Your task to perform on an android device: Turn on the flashlight Image 0: 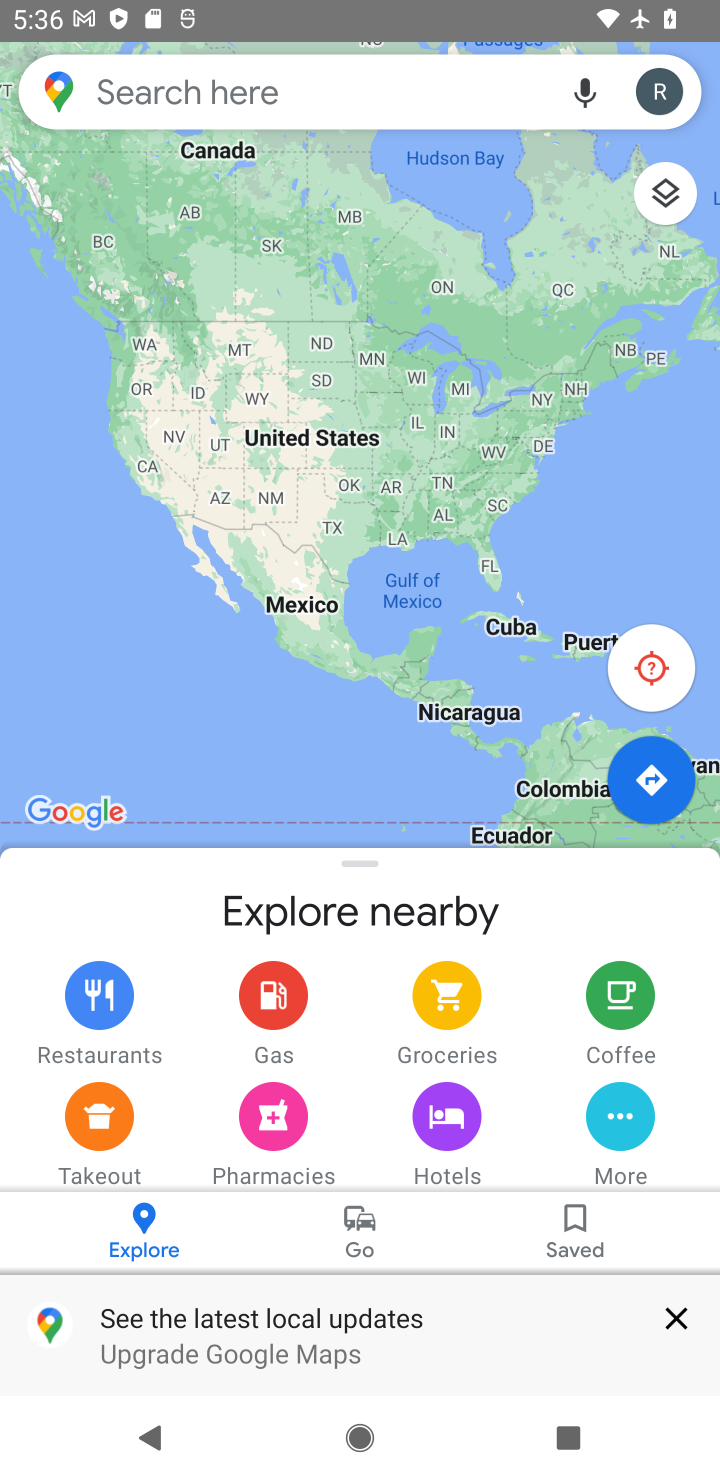
Step 0: press home button
Your task to perform on an android device: Turn on the flashlight Image 1: 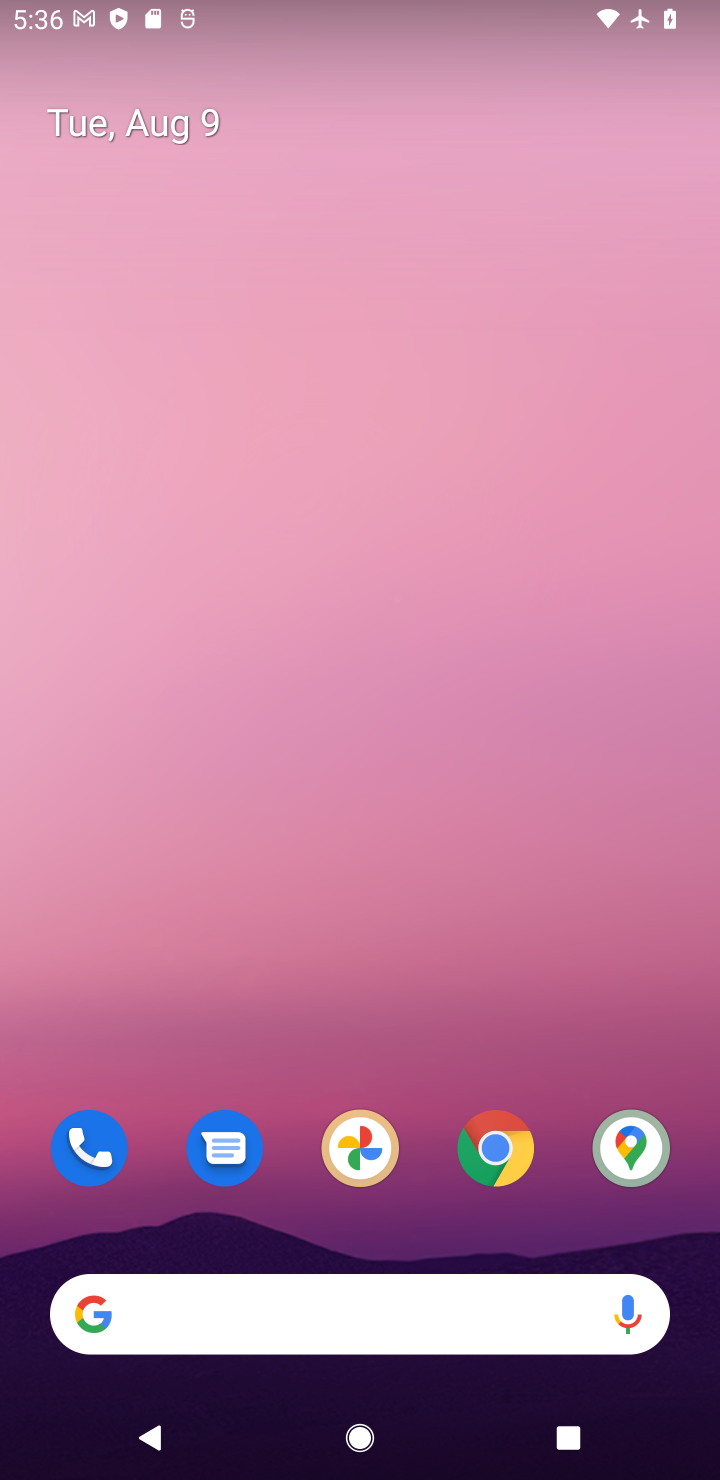
Step 1: drag from (327, 1046) to (528, 24)
Your task to perform on an android device: Turn on the flashlight Image 2: 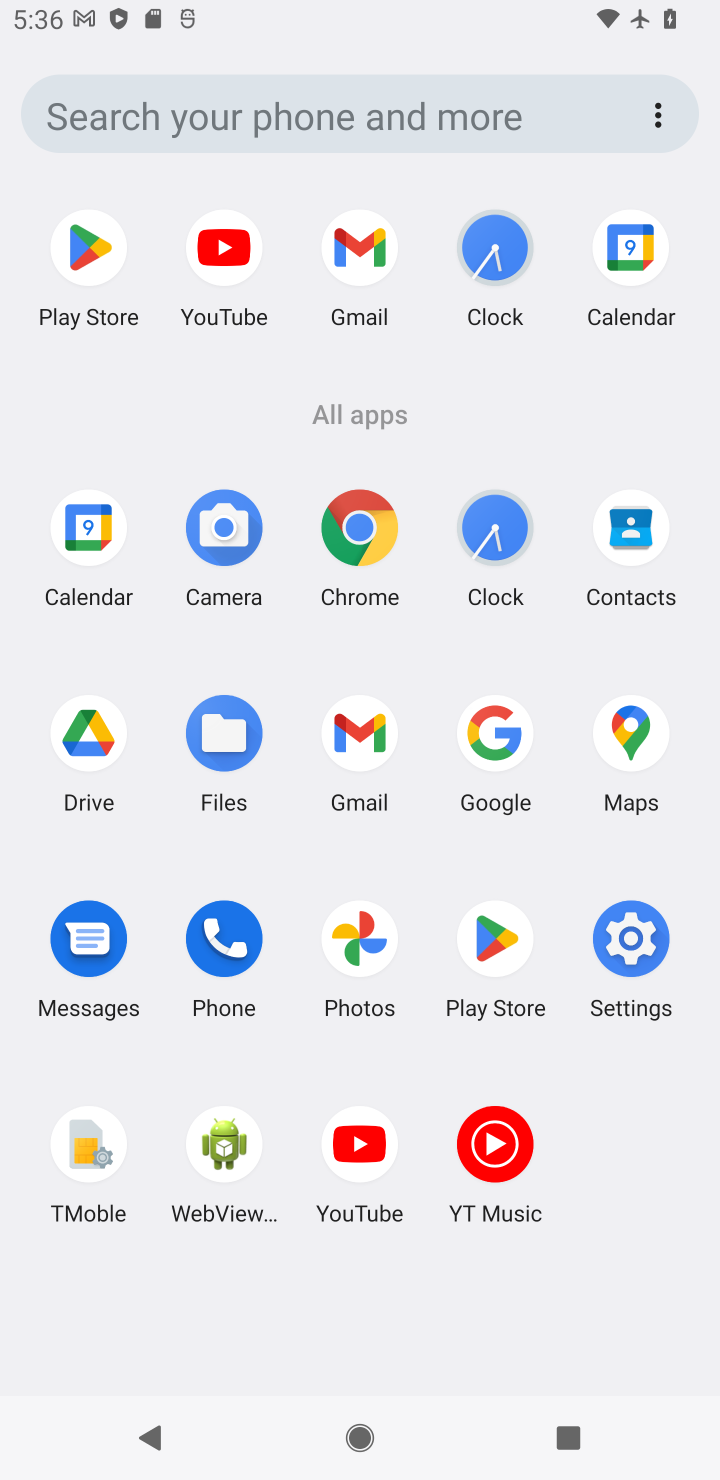
Step 2: click (629, 937)
Your task to perform on an android device: Turn on the flashlight Image 3: 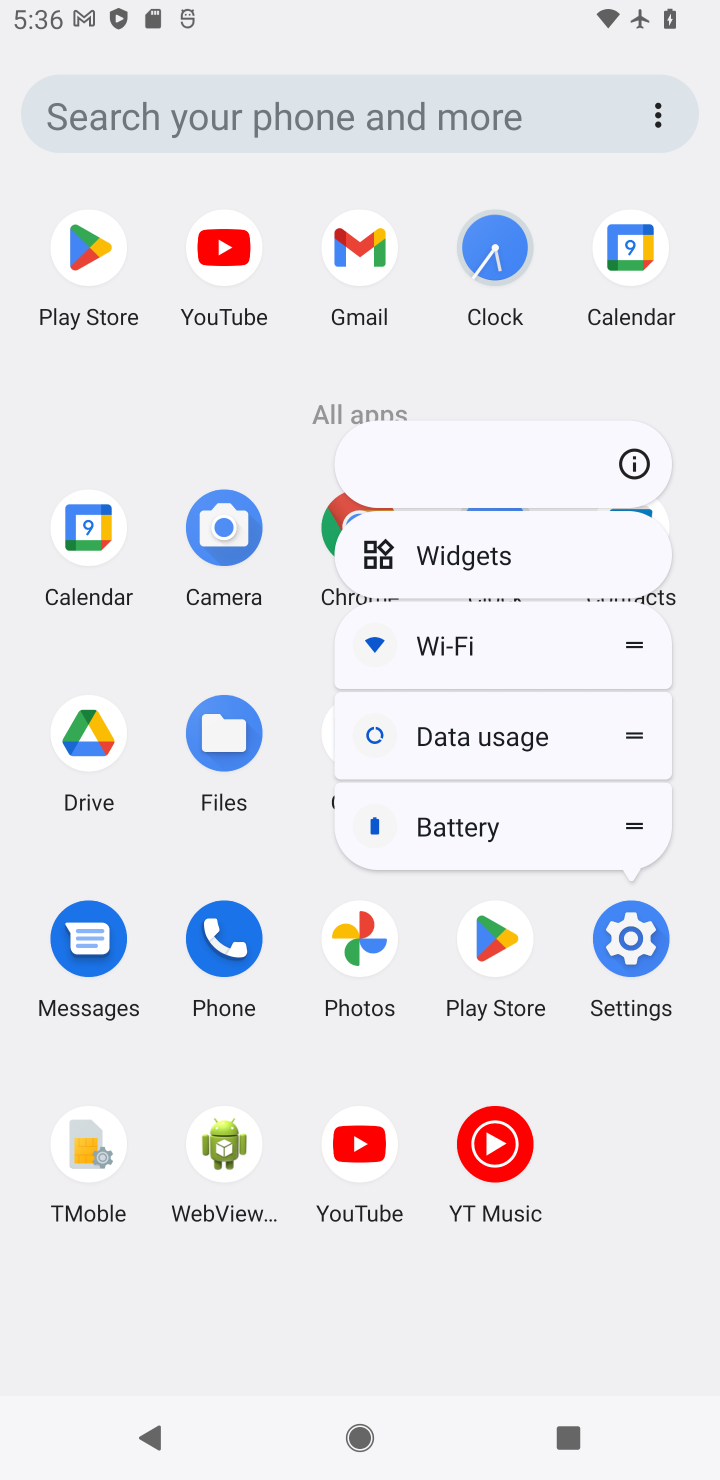
Step 3: click (635, 979)
Your task to perform on an android device: Turn on the flashlight Image 4: 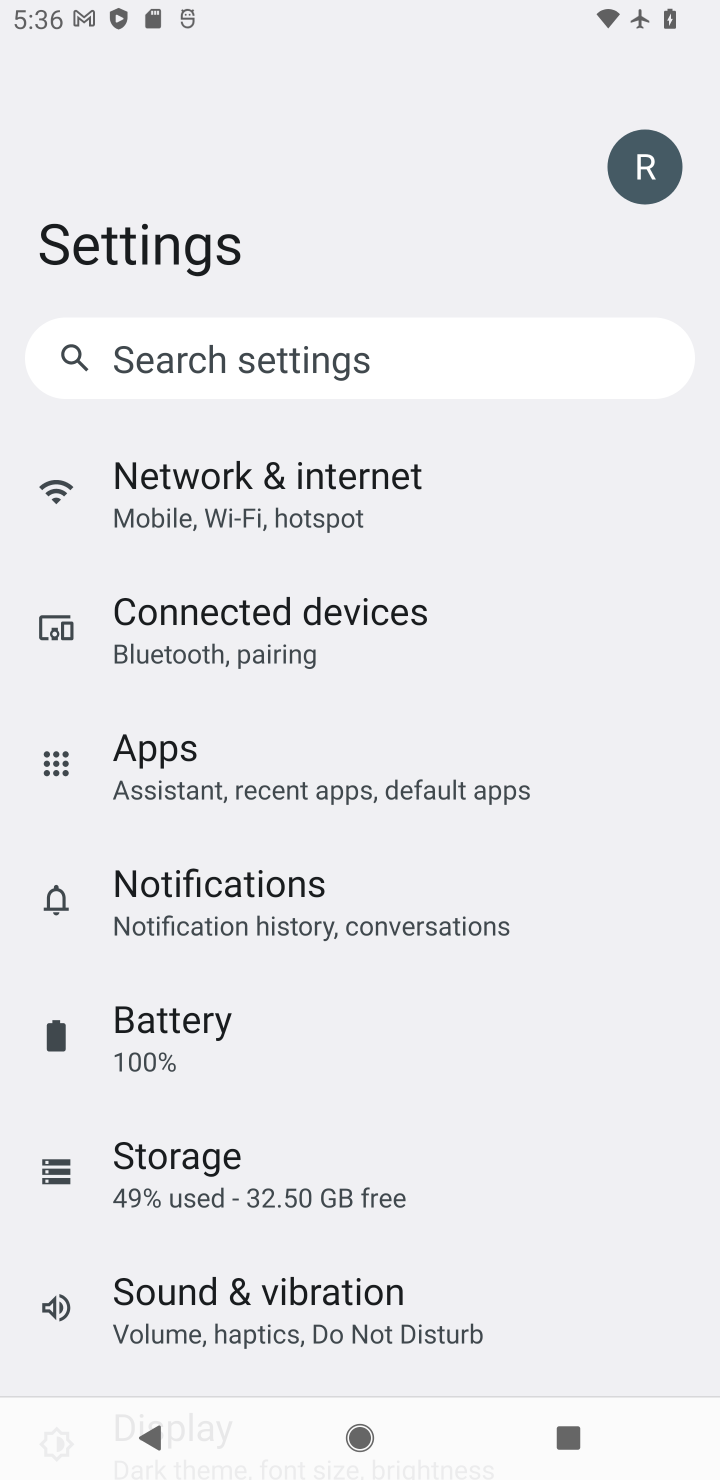
Step 4: click (310, 354)
Your task to perform on an android device: Turn on the flashlight Image 5: 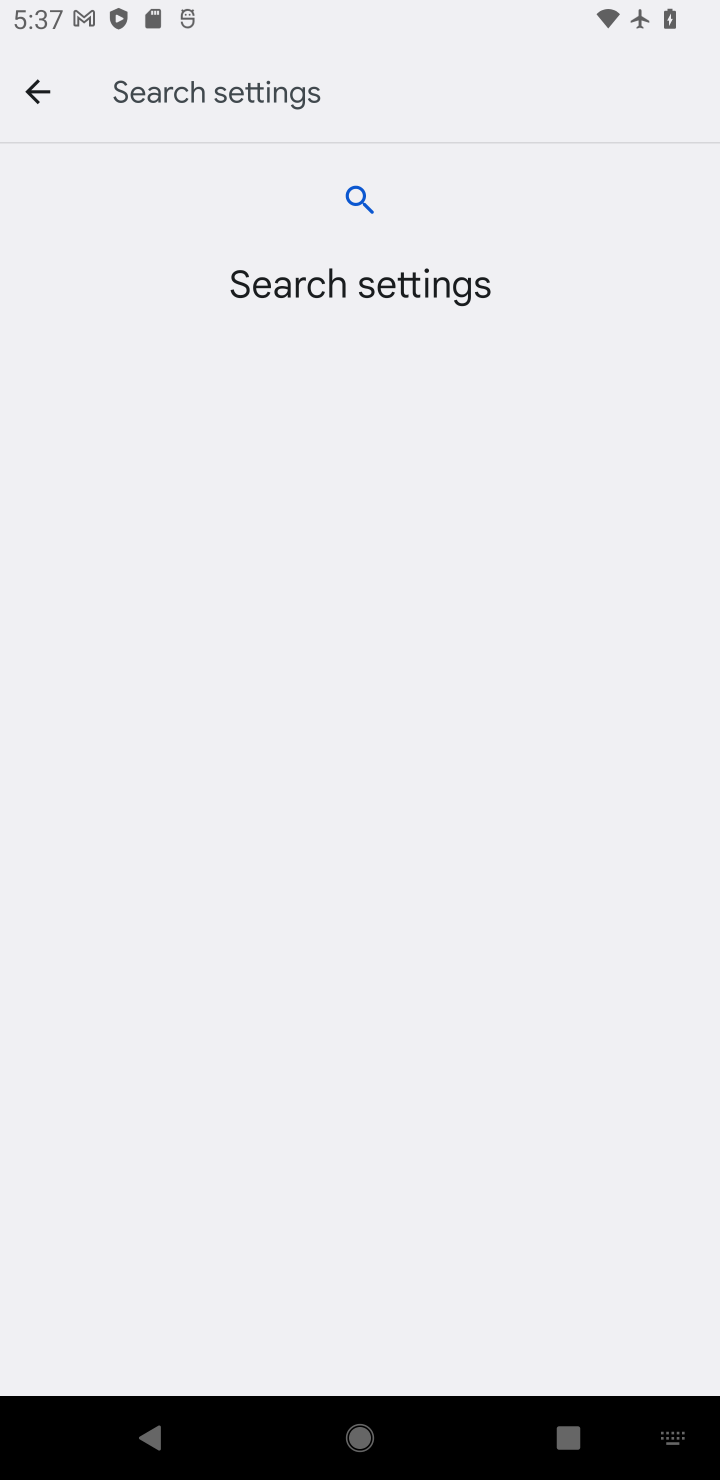
Step 5: type "flashlight"
Your task to perform on an android device: Turn on the flashlight Image 6: 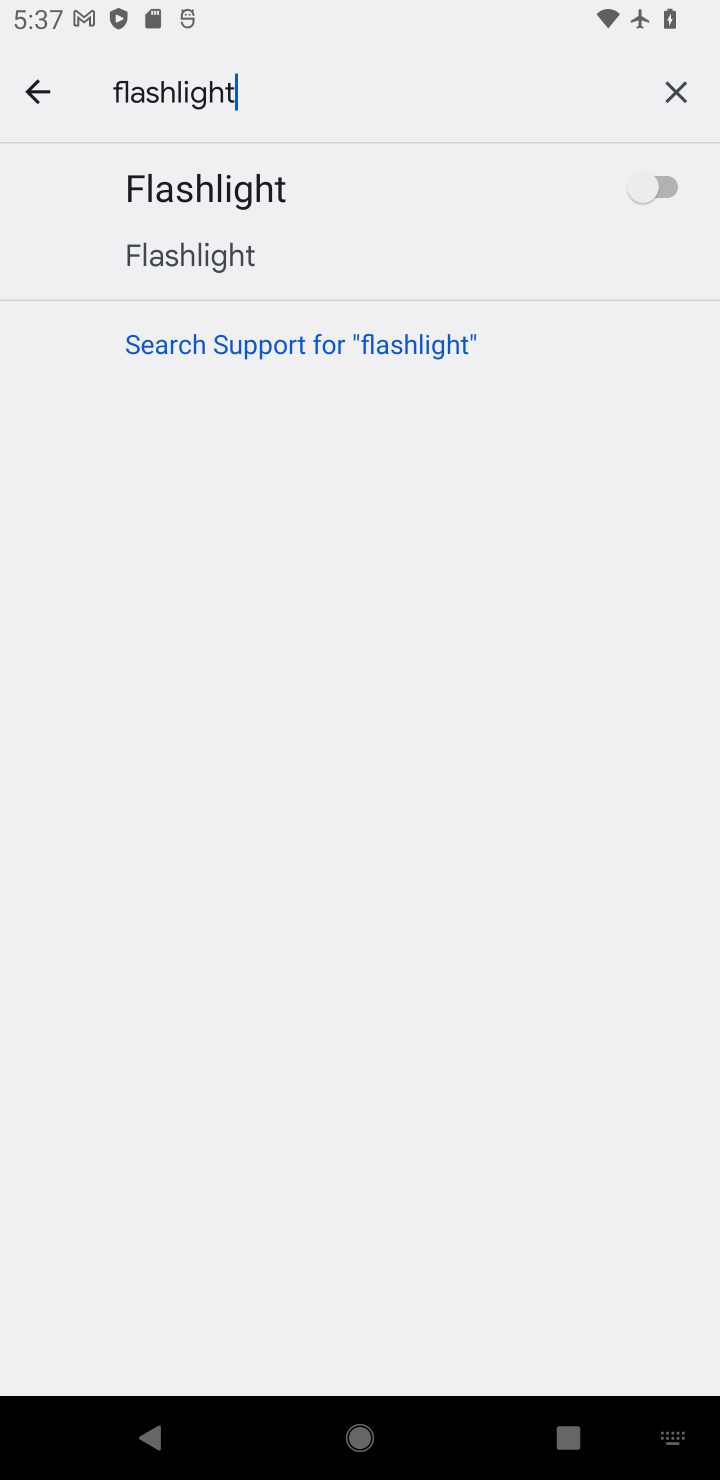
Step 6: click (697, 187)
Your task to perform on an android device: Turn on the flashlight Image 7: 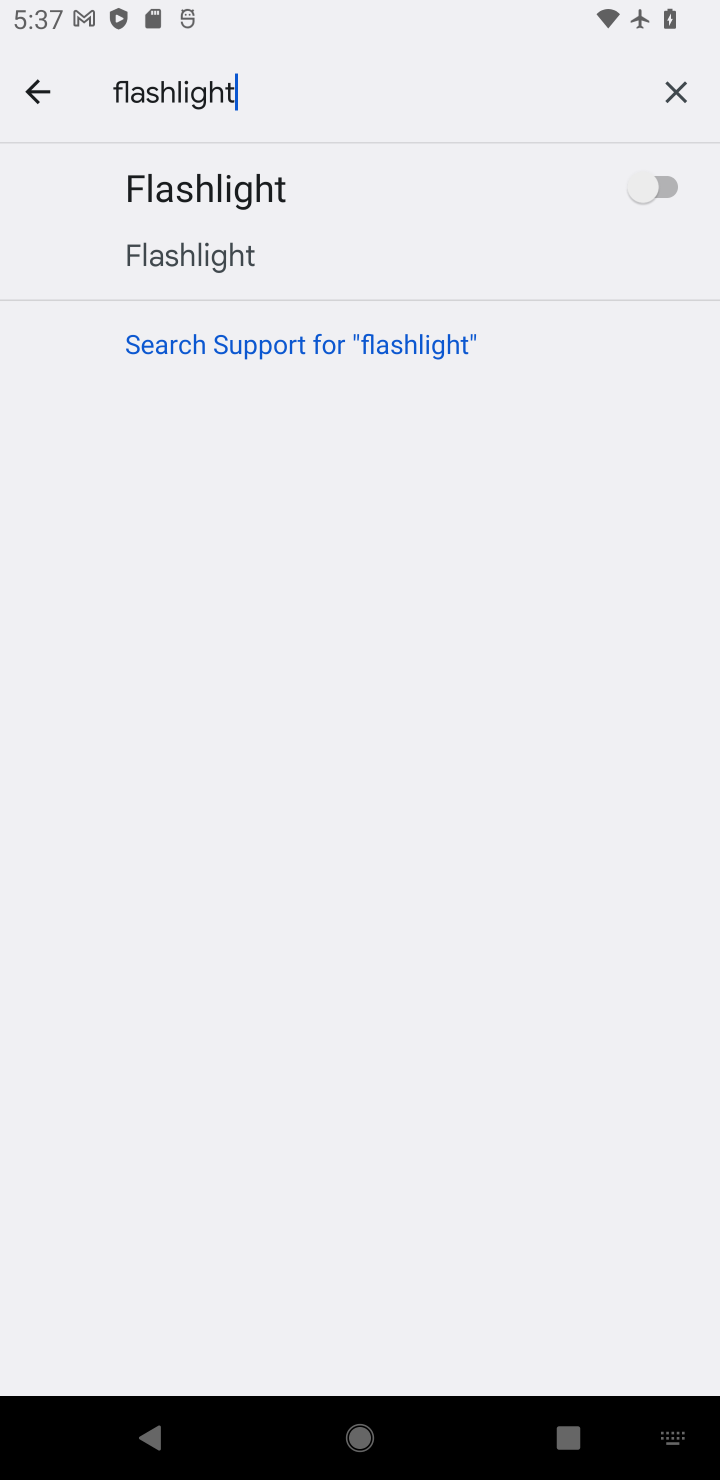
Step 7: click (672, 179)
Your task to perform on an android device: Turn on the flashlight Image 8: 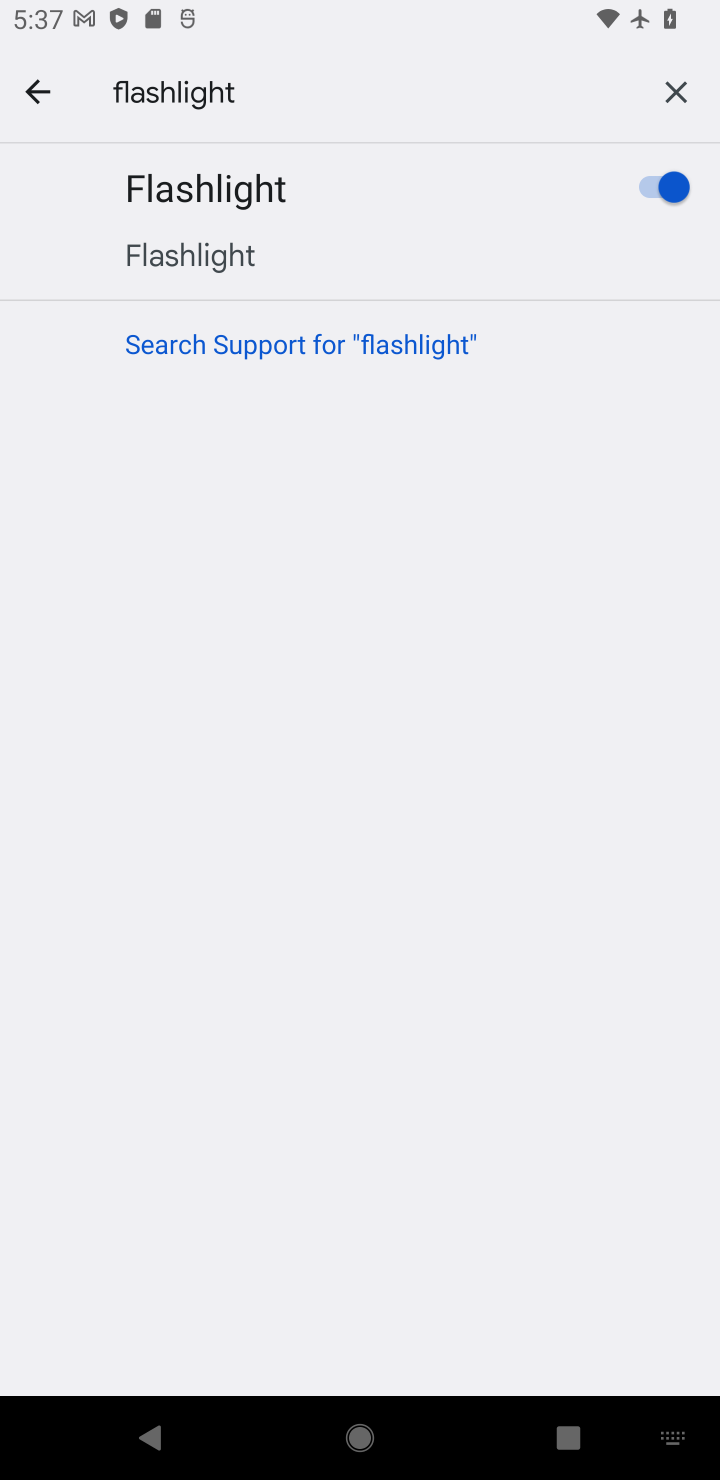
Step 8: task complete